Your task to perform on an android device: change alarm snooze length Image 0: 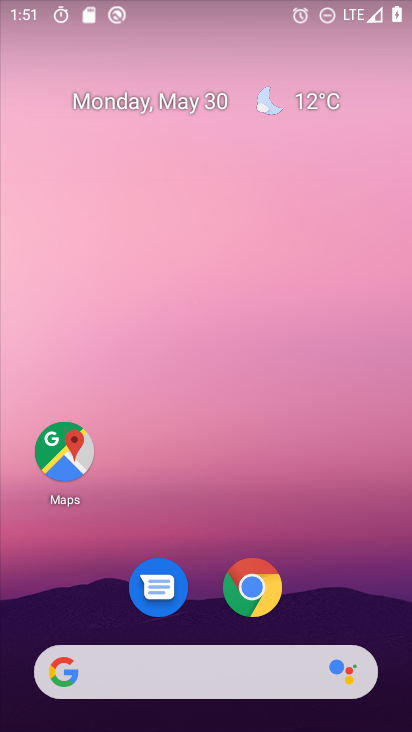
Step 0: drag from (338, 526) to (336, 118)
Your task to perform on an android device: change alarm snooze length Image 1: 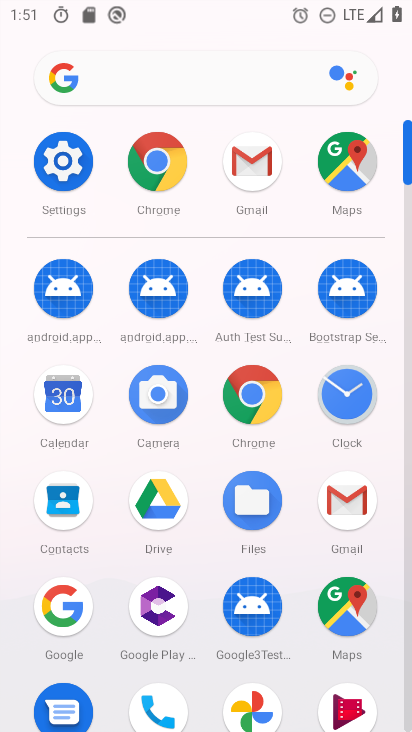
Step 1: click (337, 400)
Your task to perform on an android device: change alarm snooze length Image 2: 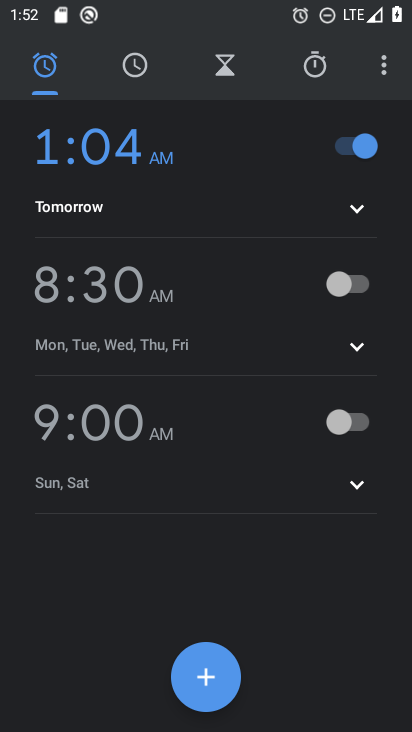
Step 2: click (389, 62)
Your task to perform on an android device: change alarm snooze length Image 3: 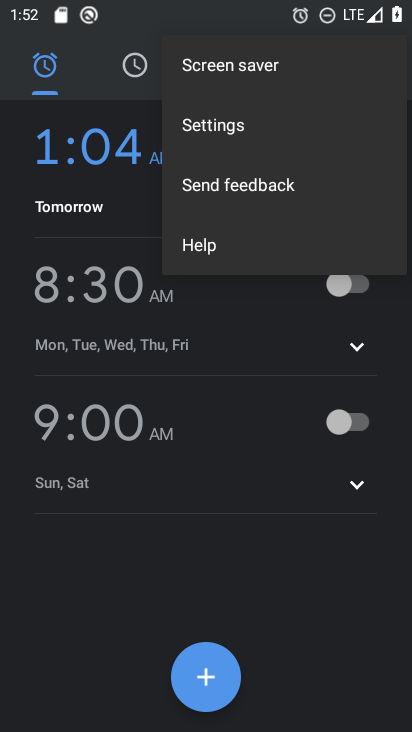
Step 3: click (198, 114)
Your task to perform on an android device: change alarm snooze length Image 4: 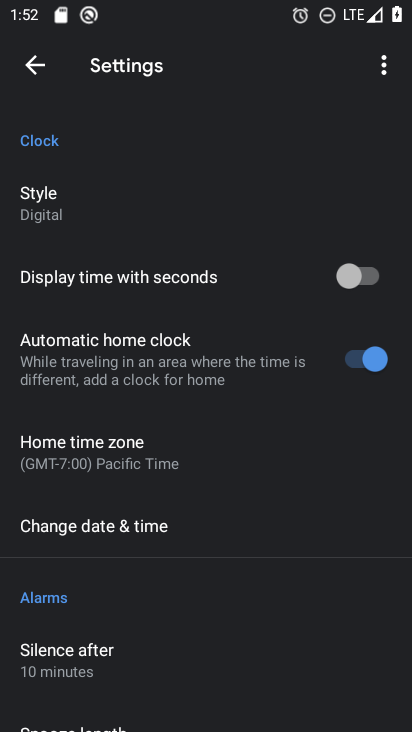
Step 4: drag from (255, 683) to (258, 243)
Your task to perform on an android device: change alarm snooze length Image 5: 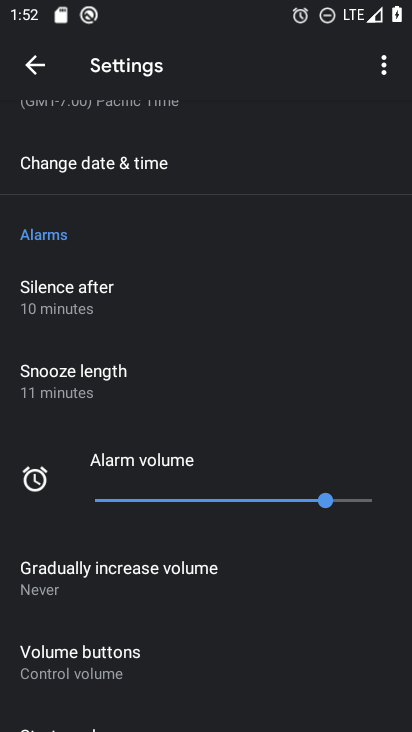
Step 5: drag from (297, 581) to (294, 202)
Your task to perform on an android device: change alarm snooze length Image 6: 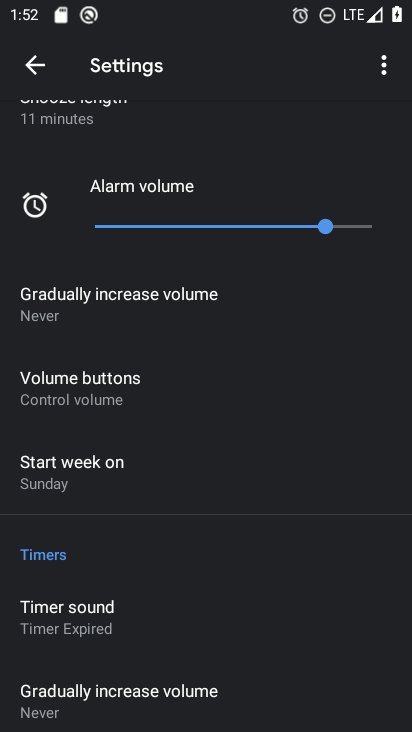
Step 6: drag from (248, 581) to (281, 294)
Your task to perform on an android device: change alarm snooze length Image 7: 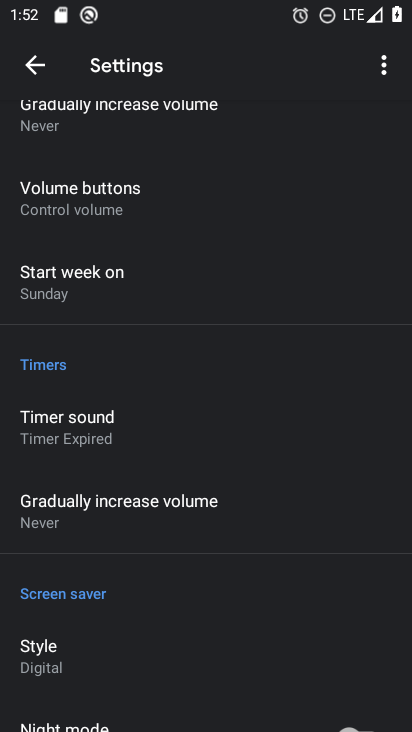
Step 7: drag from (266, 317) to (283, 213)
Your task to perform on an android device: change alarm snooze length Image 8: 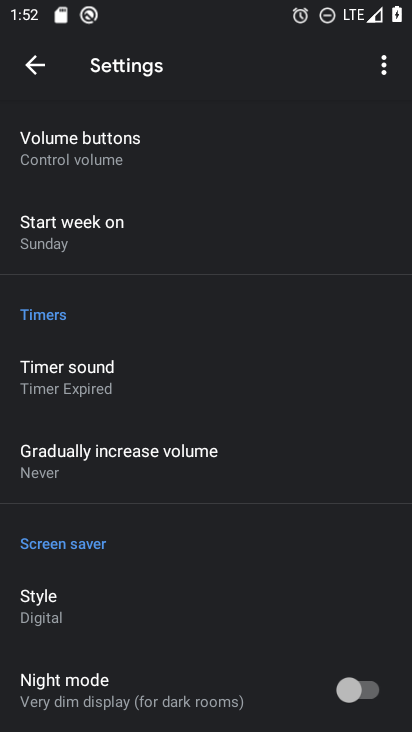
Step 8: drag from (165, 605) to (210, 191)
Your task to perform on an android device: change alarm snooze length Image 9: 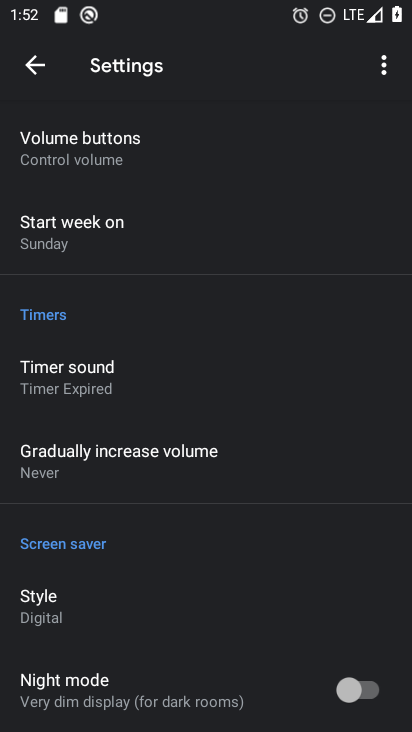
Step 9: drag from (196, 289) to (205, 603)
Your task to perform on an android device: change alarm snooze length Image 10: 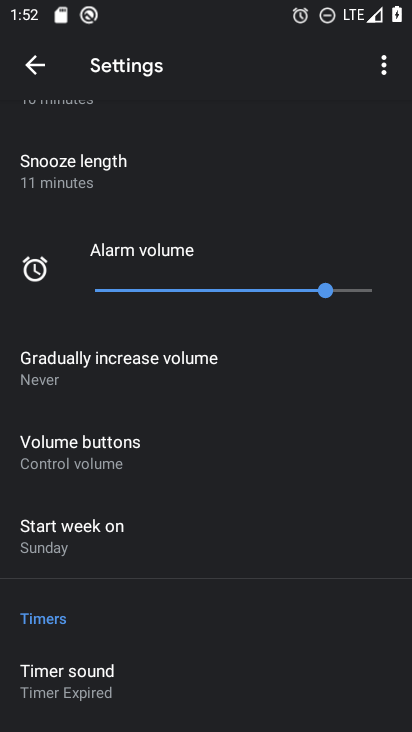
Step 10: drag from (248, 367) to (292, 575)
Your task to perform on an android device: change alarm snooze length Image 11: 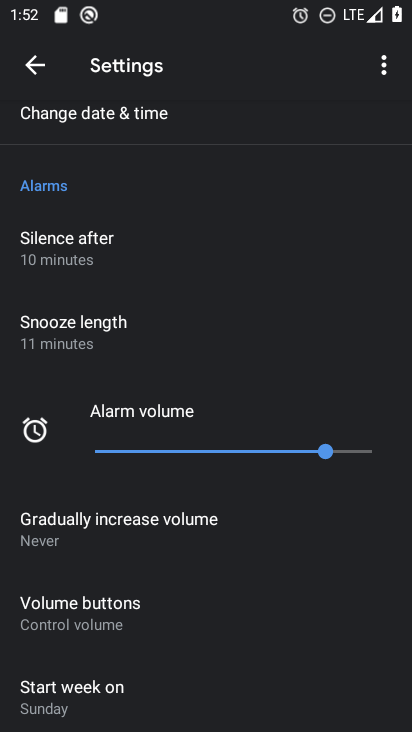
Step 11: click (149, 334)
Your task to perform on an android device: change alarm snooze length Image 12: 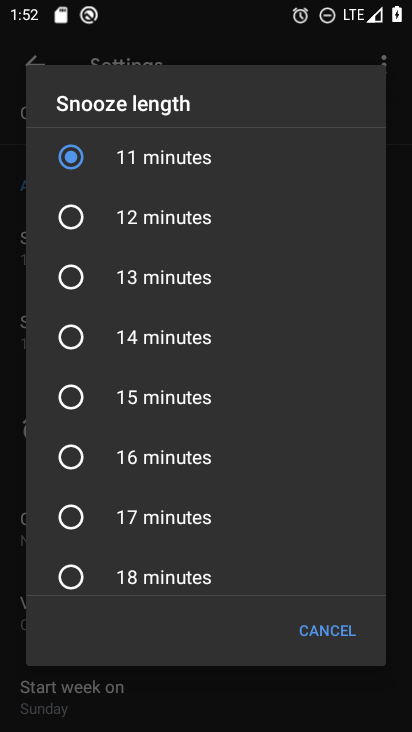
Step 12: click (137, 211)
Your task to perform on an android device: change alarm snooze length Image 13: 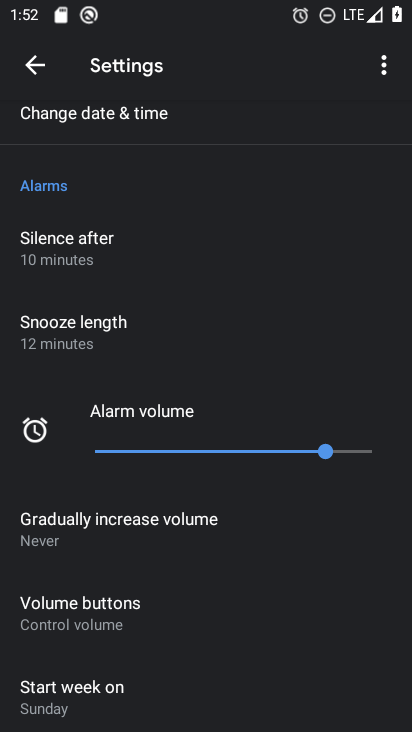
Step 13: task complete